Your task to perform on an android device: Open Chrome and go to settings Image 0: 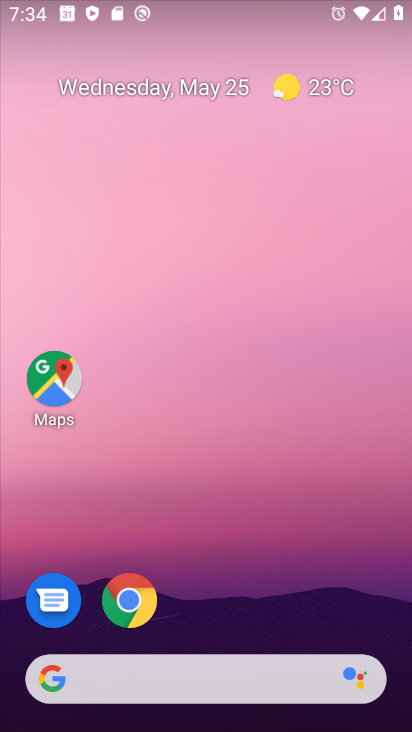
Step 0: click (128, 601)
Your task to perform on an android device: Open Chrome and go to settings Image 1: 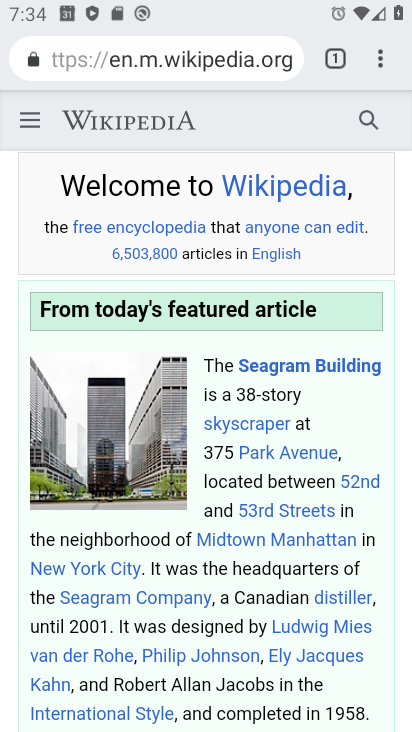
Step 1: click (381, 54)
Your task to perform on an android device: Open Chrome and go to settings Image 2: 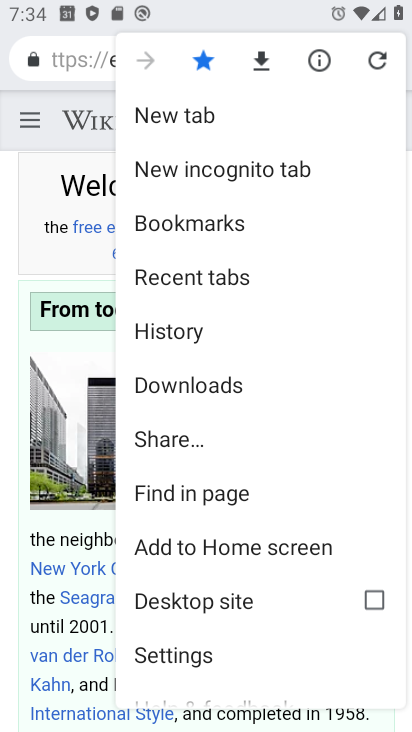
Step 2: click (182, 655)
Your task to perform on an android device: Open Chrome and go to settings Image 3: 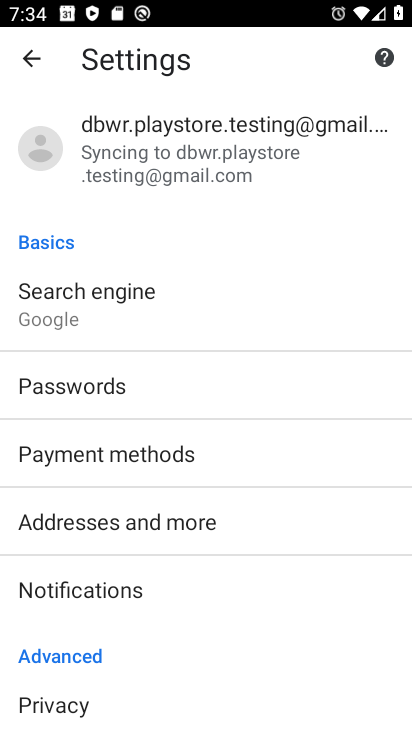
Step 3: task complete